Your task to perform on an android device: check data usage Image 0: 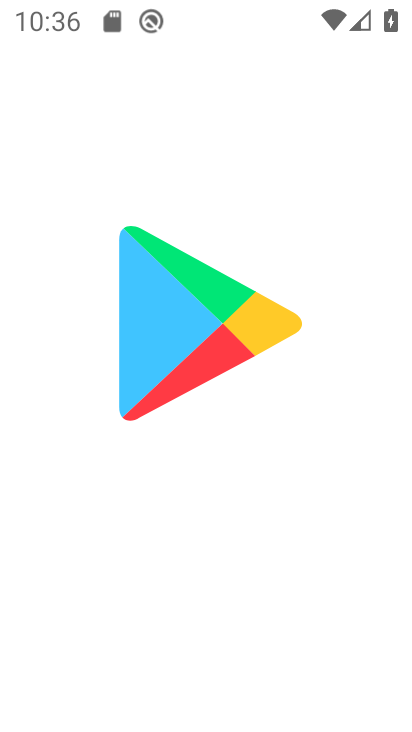
Step 0: press home button
Your task to perform on an android device: check data usage Image 1: 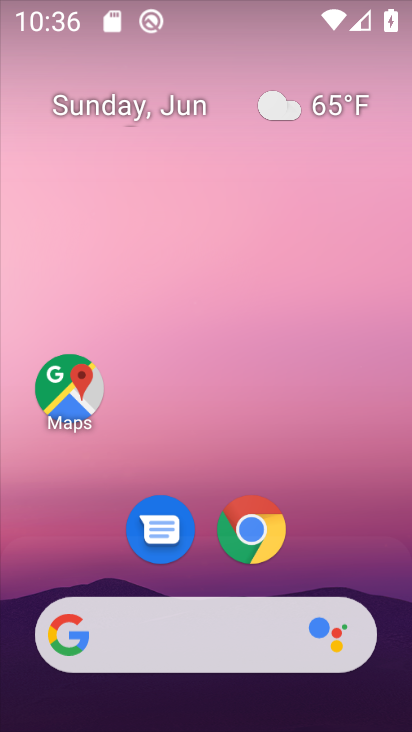
Step 1: drag from (73, 601) to (241, 131)
Your task to perform on an android device: check data usage Image 2: 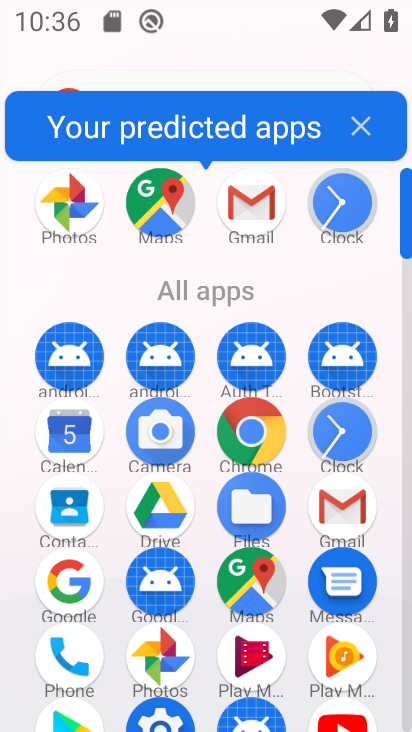
Step 2: drag from (189, 672) to (260, 347)
Your task to perform on an android device: check data usage Image 3: 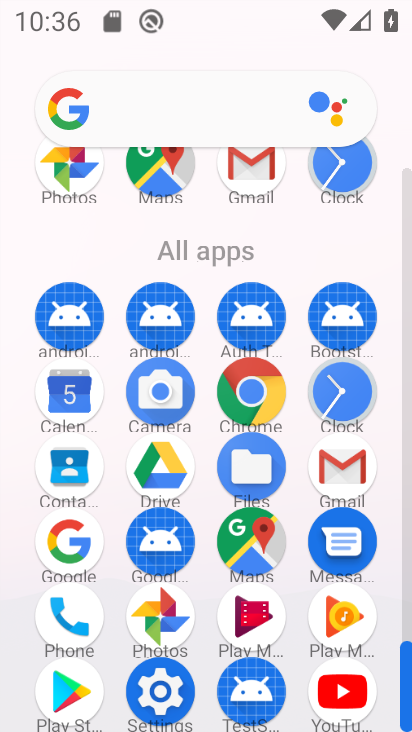
Step 3: click (163, 690)
Your task to perform on an android device: check data usage Image 4: 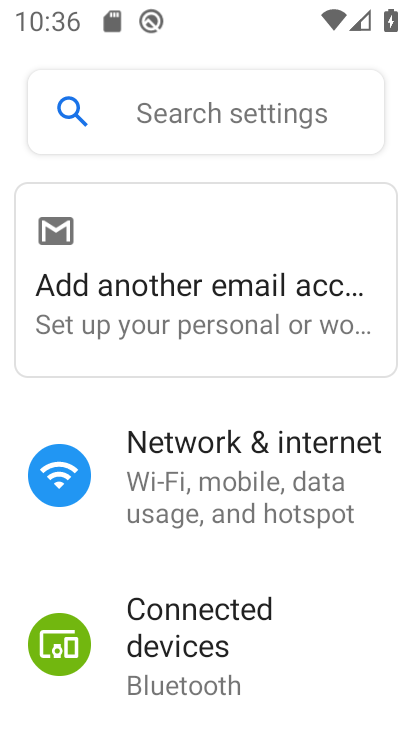
Step 4: drag from (193, 658) to (269, 361)
Your task to perform on an android device: check data usage Image 5: 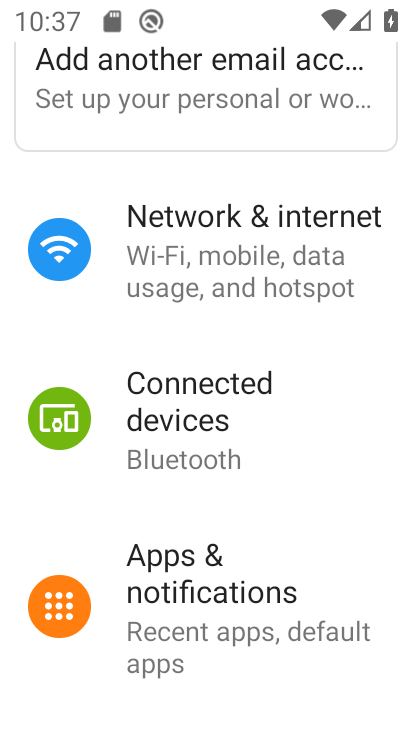
Step 5: click (237, 271)
Your task to perform on an android device: check data usage Image 6: 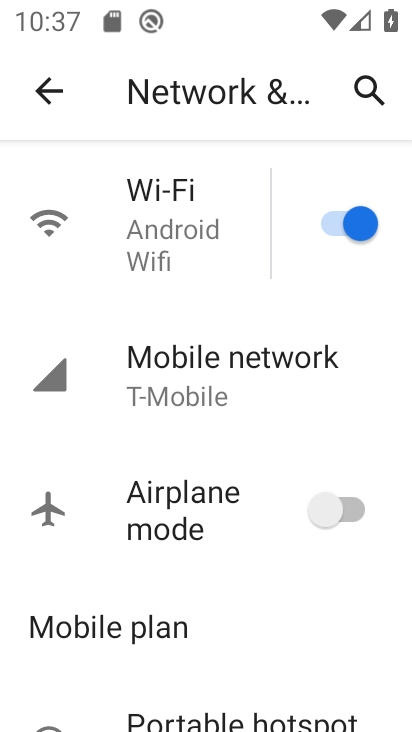
Step 6: click (224, 405)
Your task to perform on an android device: check data usage Image 7: 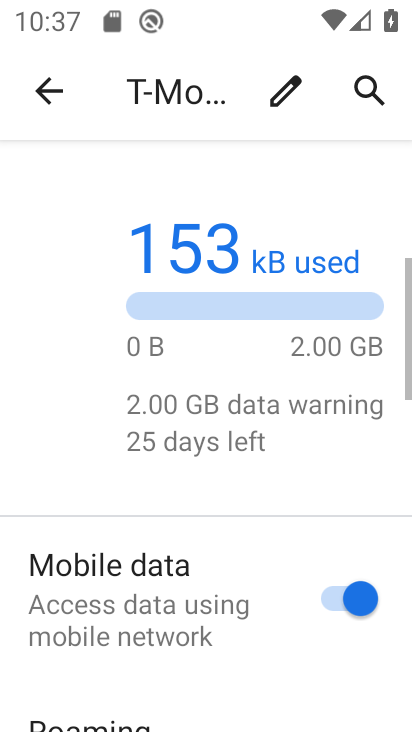
Step 7: drag from (181, 631) to (316, 187)
Your task to perform on an android device: check data usage Image 8: 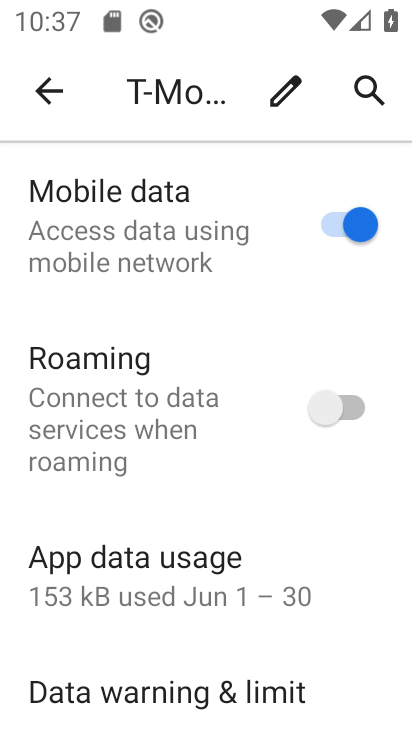
Step 8: click (230, 605)
Your task to perform on an android device: check data usage Image 9: 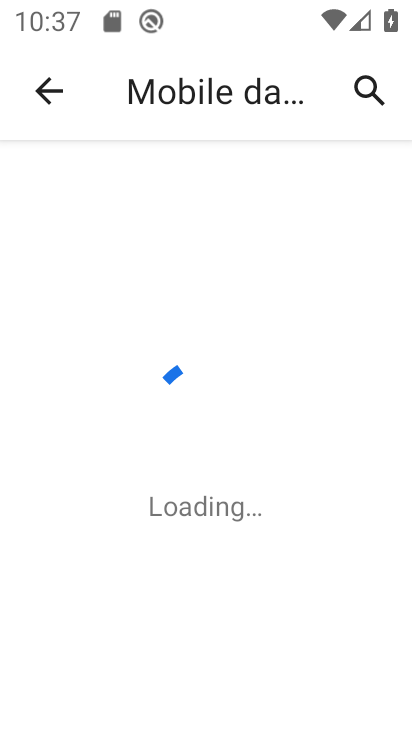
Step 9: click (250, 293)
Your task to perform on an android device: check data usage Image 10: 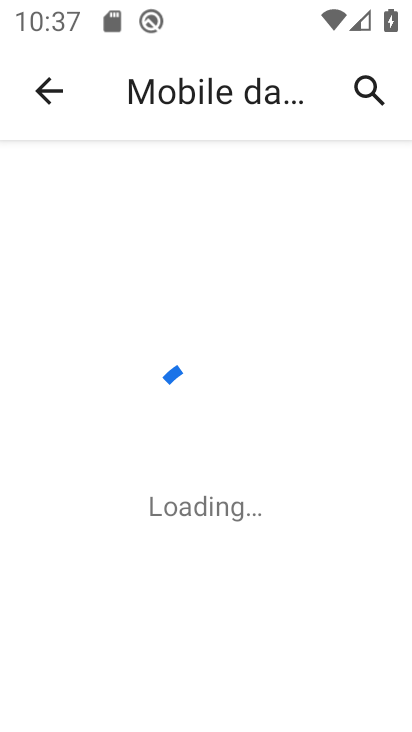
Step 10: task complete